Your task to perform on an android device: Open the calendar app, open the side menu, and click the "Day" option Image 0: 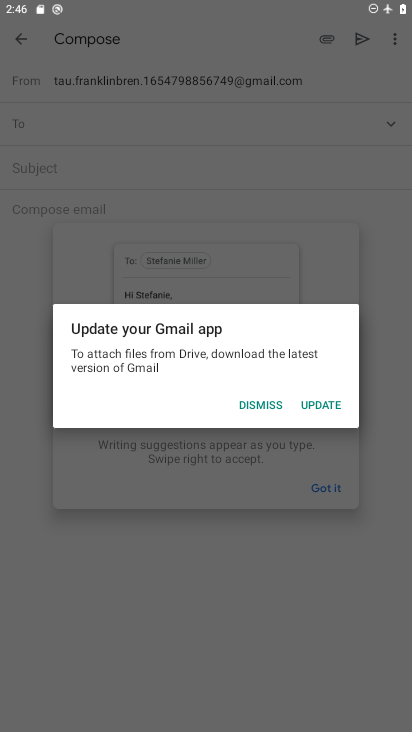
Step 0: press home button
Your task to perform on an android device: Open the calendar app, open the side menu, and click the "Day" option Image 1: 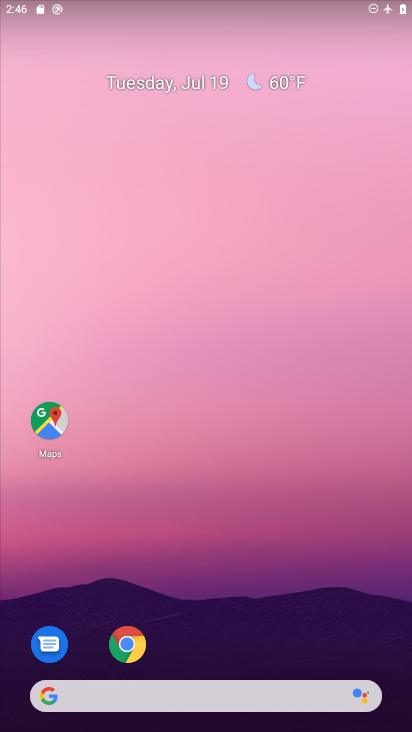
Step 1: drag from (186, 662) to (152, 90)
Your task to perform on an android device: Open the calendar app, open the side menu, and click the "Day" option Image 2: 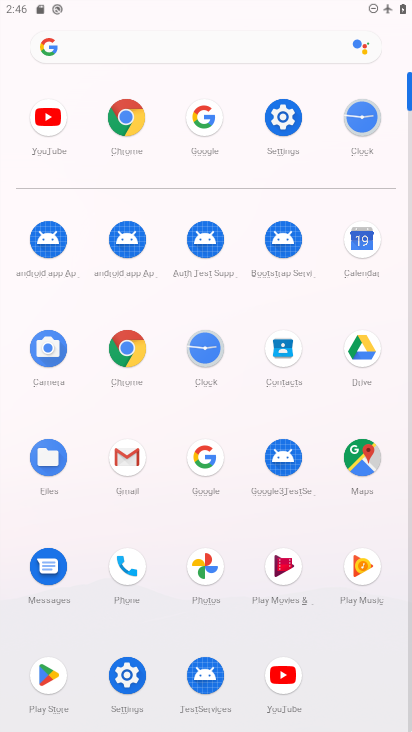
Step 2: click (362, 247)
Your task to perform on an android device: Open the calendar app, open the side menu, and click the "Day" option Image 3: 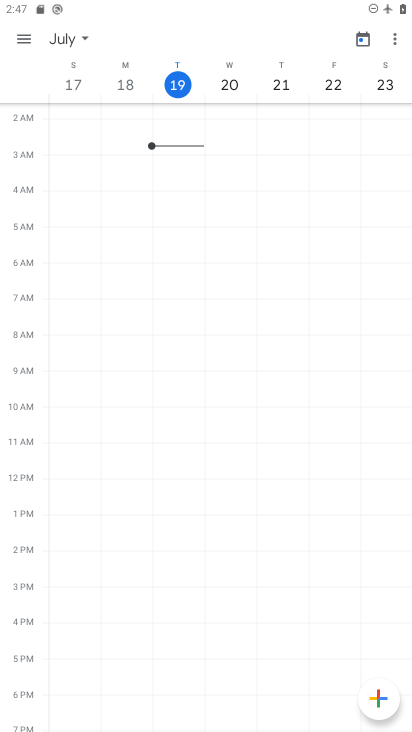
Step 3: click (23, 37)
Your task to perform on an android device: Open the calendar app, open the side menu, and click the "Day" option Image 4: 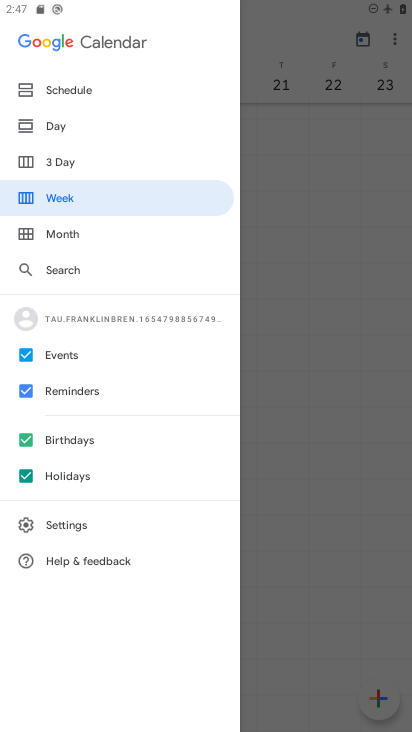
Step 4: click (53, 130)
Your task to perform on an android device: Open the calendar app, open the side menu, and click the "Day" option Image 5: 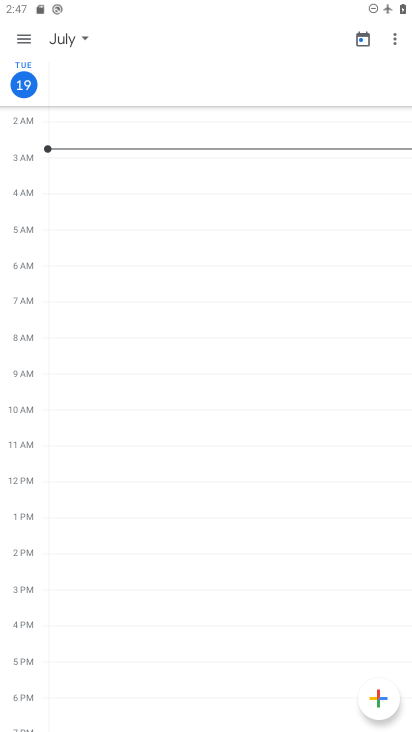
Step 5: task complete